Your task to perform on an android device: turn on the 12-hour format for clock Image 0: 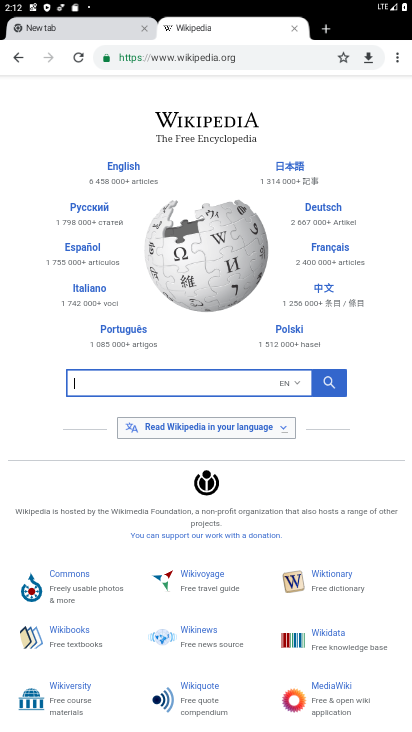
Step 0: press home button
Your task to perform on an android device: turn on the 12-hour format for clock Image 1: 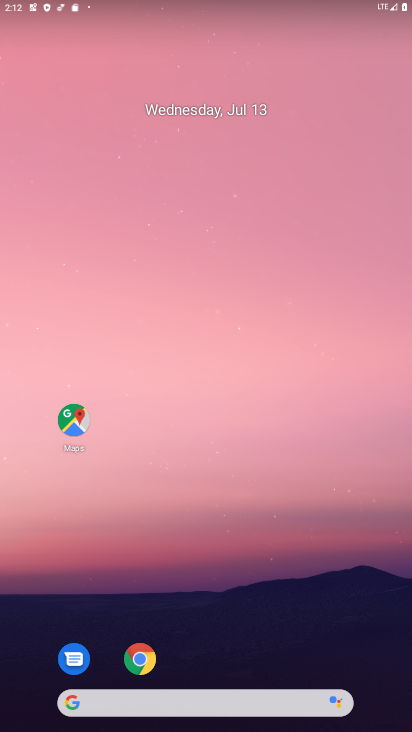
Step 1: drag from (387, 642) to (350, 176)
Your task to perform on an android device: turn on the 12-hour format for clock Image 2: 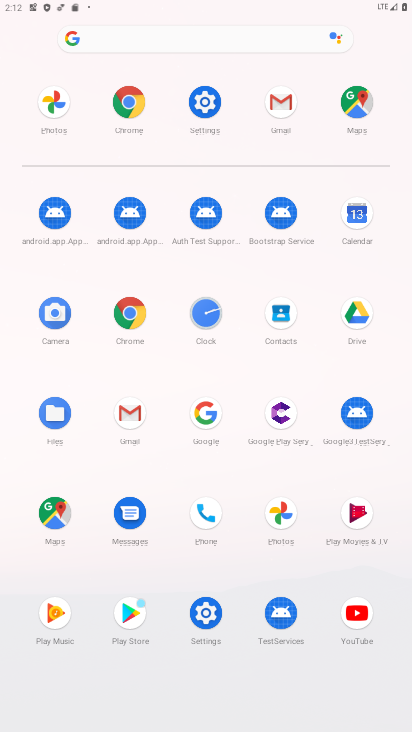
Step 2: click (203, 314)
Your task to perform on an android device: turn on the 12-hour format for clock Image 3: 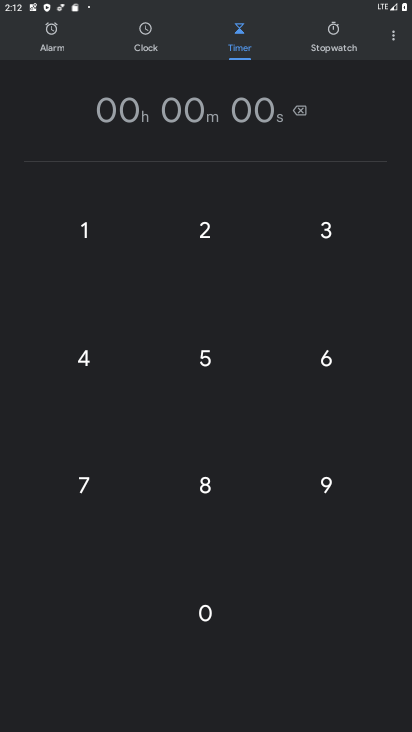
Step 3: click (393, 39)
Your task to perform on an android device: turn on the 12-hour format for clock Image 4: 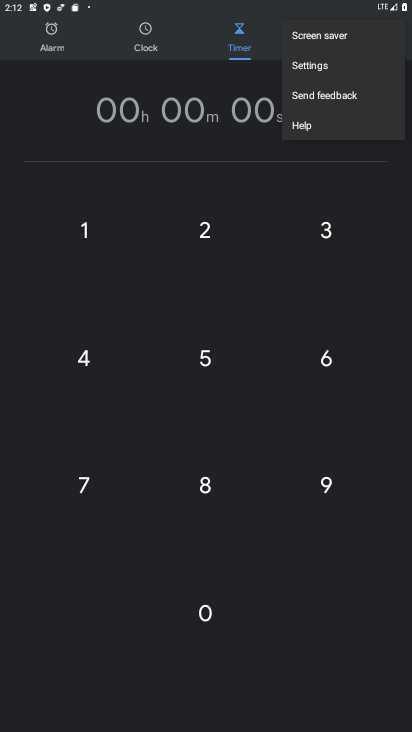
Step 4: click (304, 64)
Your task to perform on an android device: turn on the 12-hour format for clock Image 5: 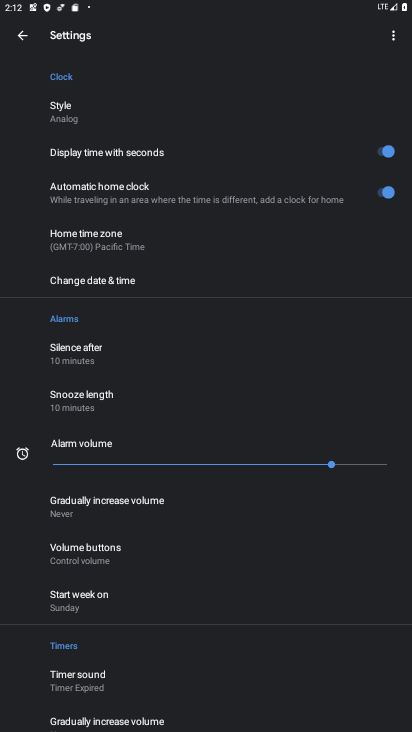
Step 5: click (132, 283)
Your task to perform on an android device: turn on the 12-hour format for clock Image 6: 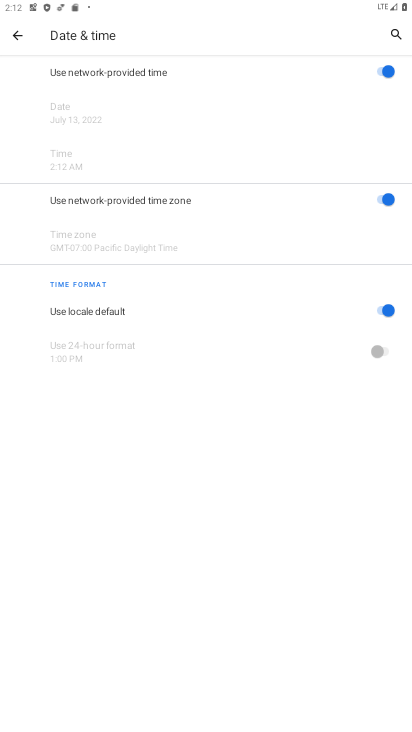
Step 6: task complete